Your task to perform on an android device: Open Amazon Image 0: 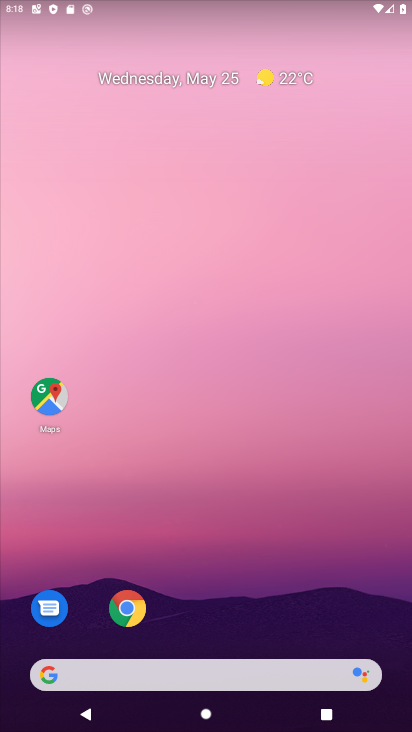
Step 0: click (126, 607)
Your task to perform on an android device: Open Amazon Image 1: 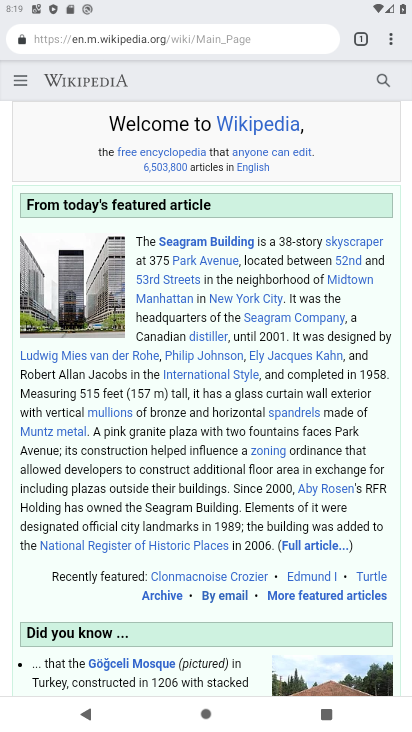
Step 1: click (213, 40)
Your task to perform on an android device: Open Amazon Image 2: 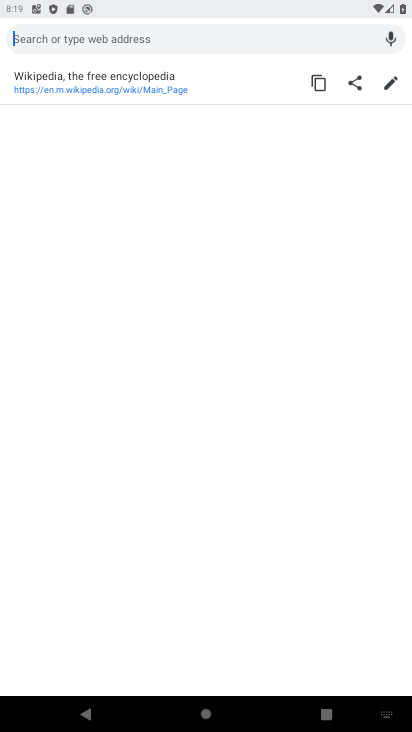
Step 2: type "Amazon"
Your task to perform on an android device: Open Amazon Image 3: 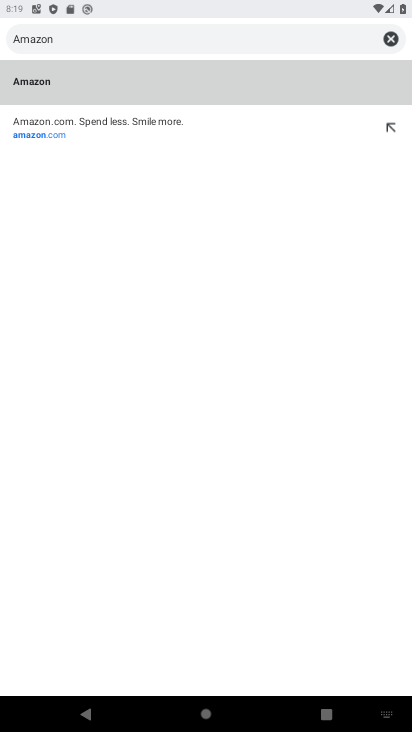
Step 3: click (40, 80)
Your task to perform on an android device: Open Amazon Image 4: 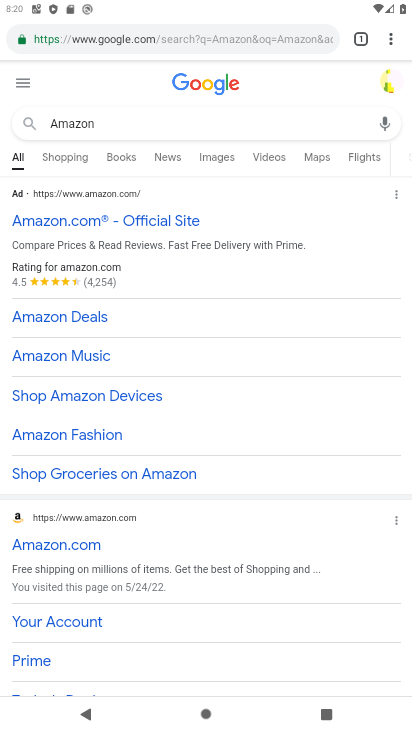
Step 4: click (74, 226)
Your task to perform on an android device: Open Amazon Image 5: 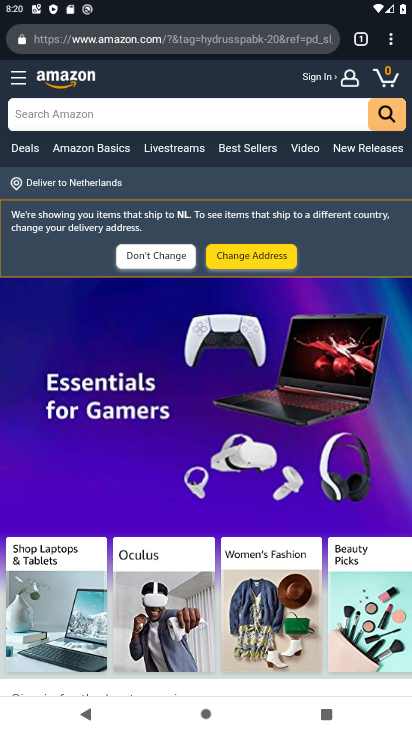
Step 5: task complete